Your task to perform on an android device: turn on showing notifications on the lock screen Image 0: 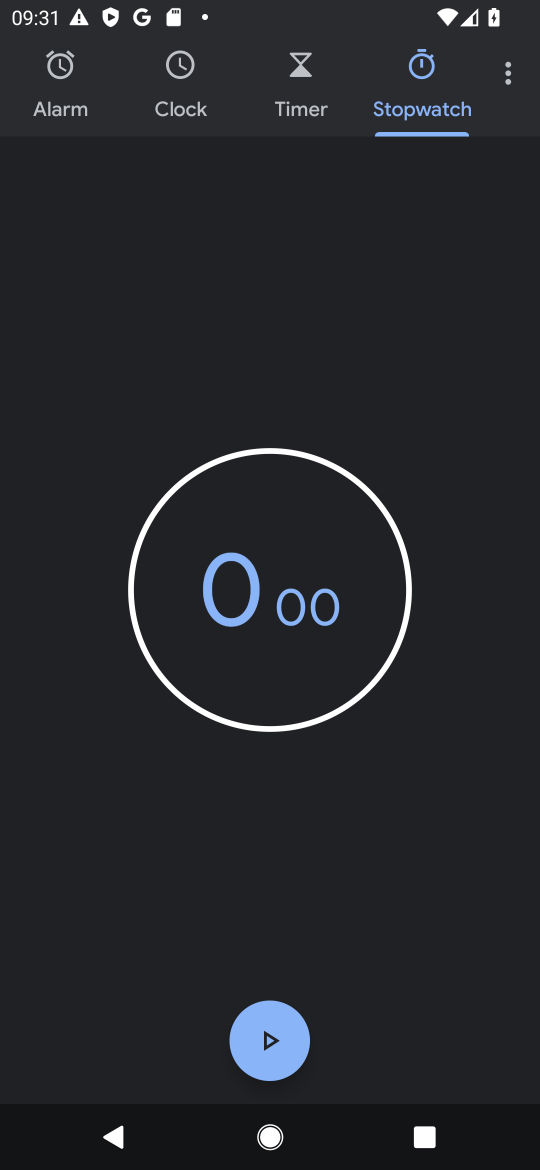
Step 0: press home button
Your task to perform on an android device: turn on showing notifications on the lock screen Image 1: 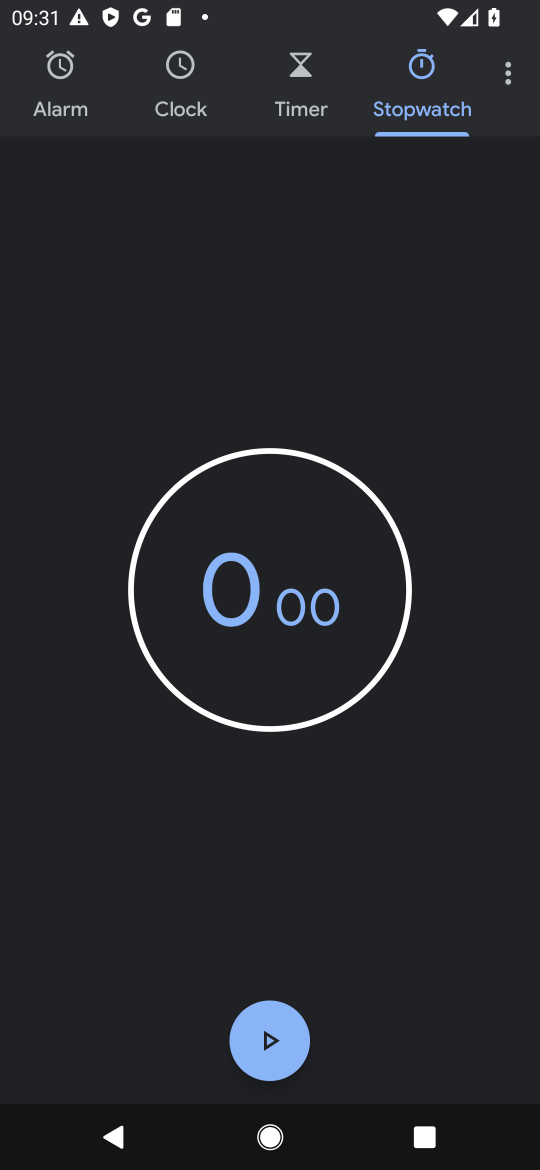
Step 1: press home button
Your task to perform on an android device: turn on showing notifications on the lock screen Image 2: 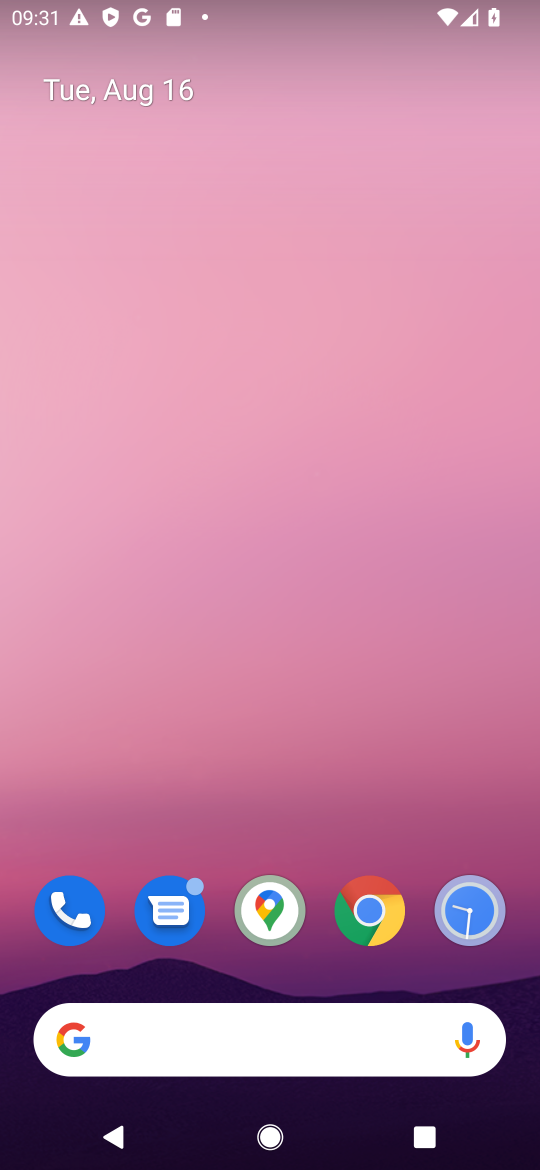
Step 2: drag from (291, 418) to (297, 0)
Your task to perform on an android device: turn on showing notifications on the lock screen Image 3: 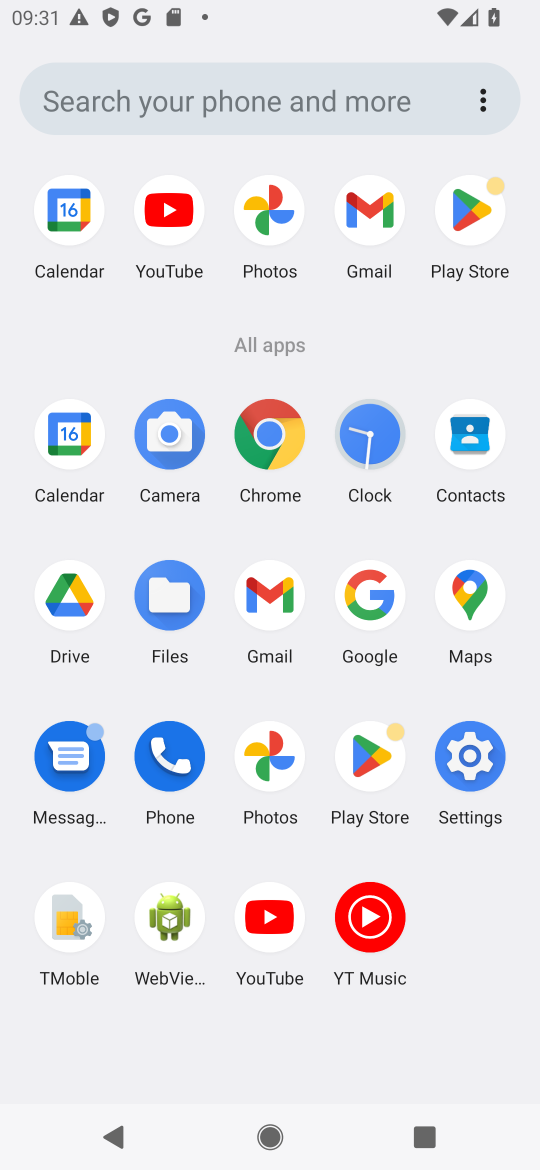
Step 3: click (462, 761)
Your task to perform on an android device: turn on showing notifications on the lock screen Image 4: 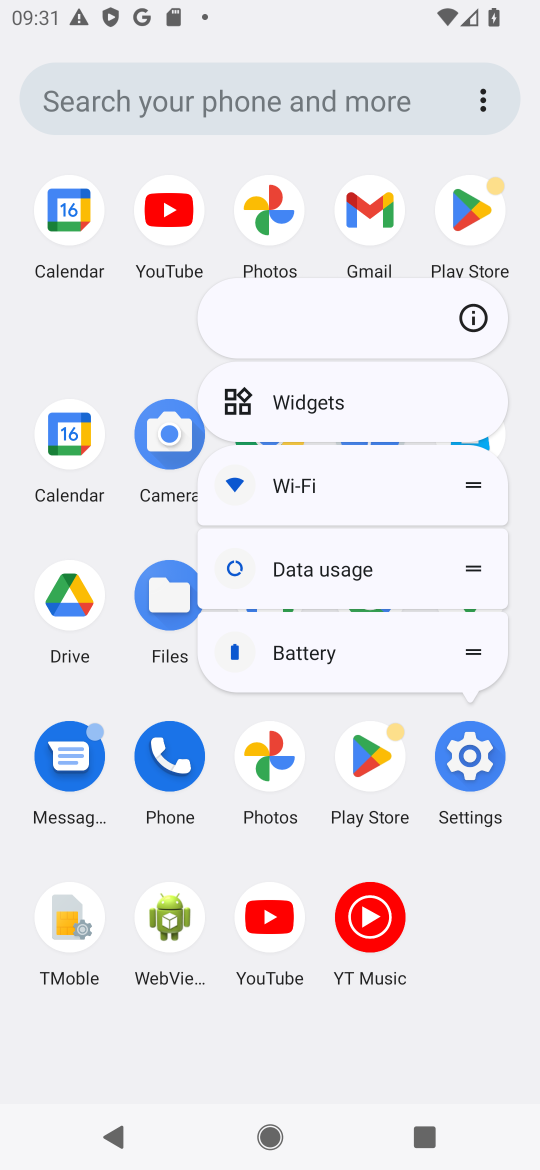
Step 4: click (462, 758)
Your task to perform on an android device: turn on showing notifications on the lock screen Image 5: 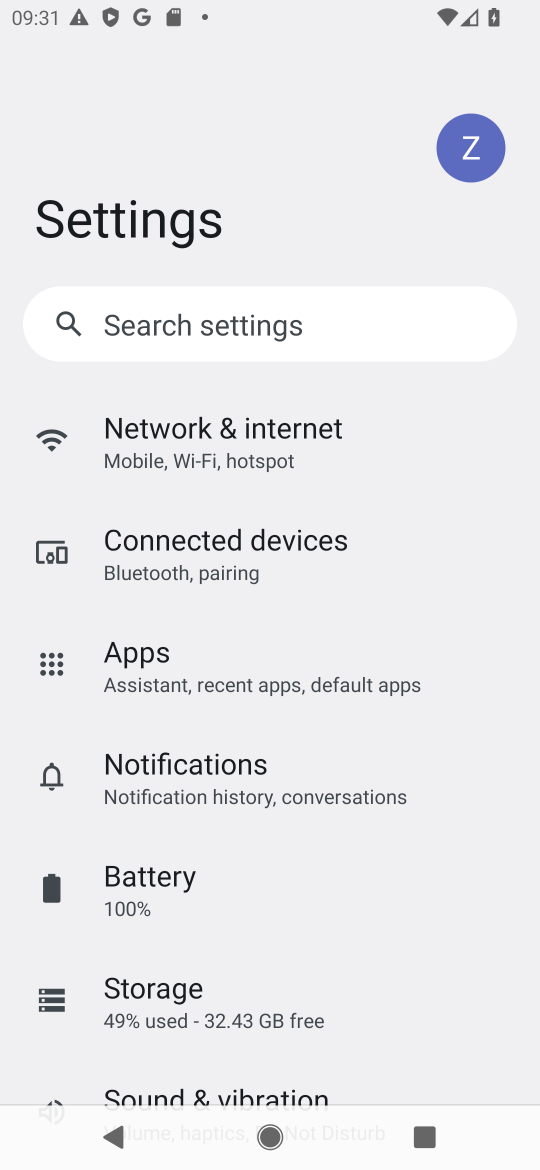
Step 5: click (294, 781)
Your task to perform on an android device: turn on showing notifications on the lock screen Image 6: 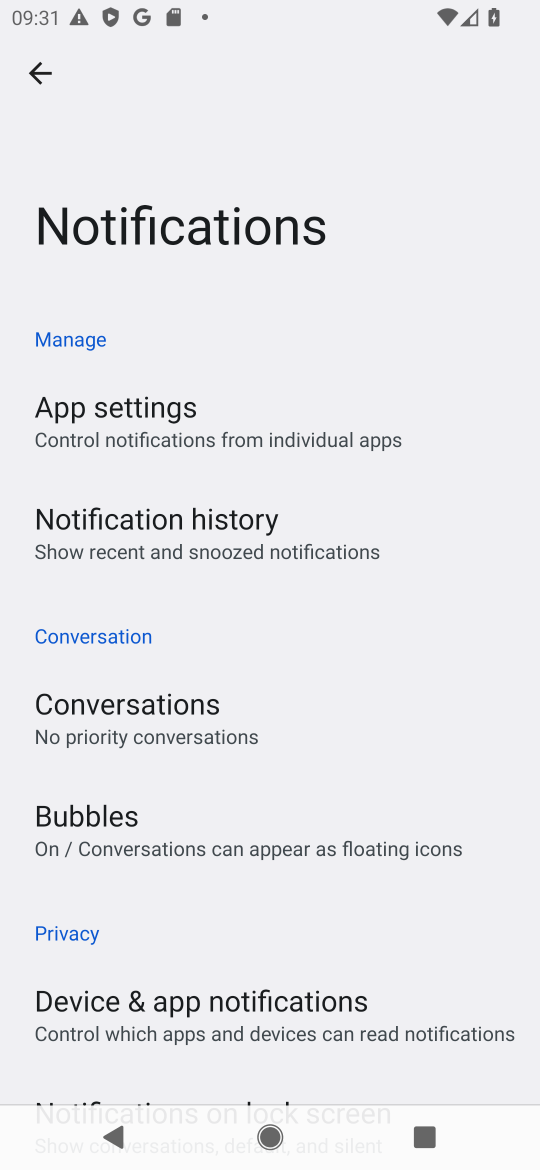
Step 6: task complete